Your task to perform on an android device: Open calendar and show me the fourth week of next month Image 0: 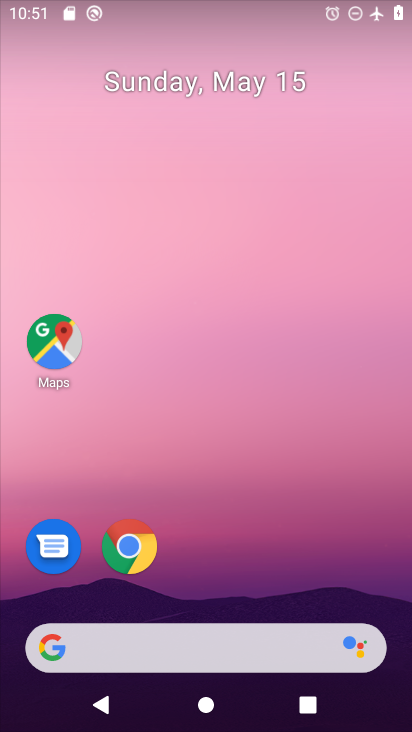
Step 0: drag from (301, 522) to (252, 132)
Your task to perform on an android device: Open calendar and show me the fourth week of next month Image 1: 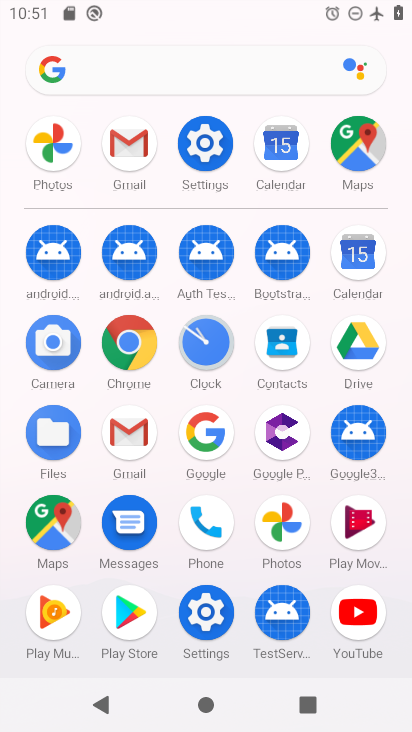
Step 1: click (358, 246)
Your task to perform on an android device: Open calendar and show me the fourth week of next month Image 2: 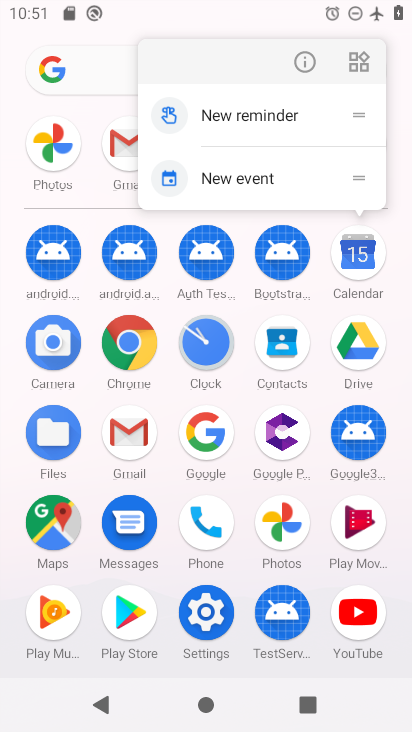
Step 2: click (366, 260)
Your task to perform on an android device: Open calendar and show me the fourth week of next month Image 3: 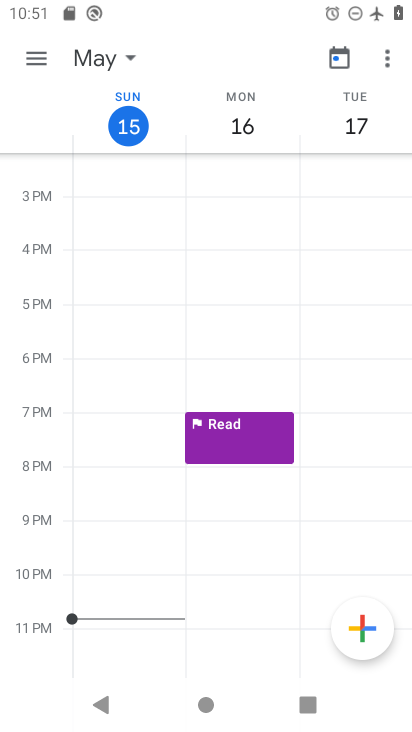
Step 3: click (112, 56)
Your task to perform on an android device: Open calendar and show me the fourth week of next month Image 4: 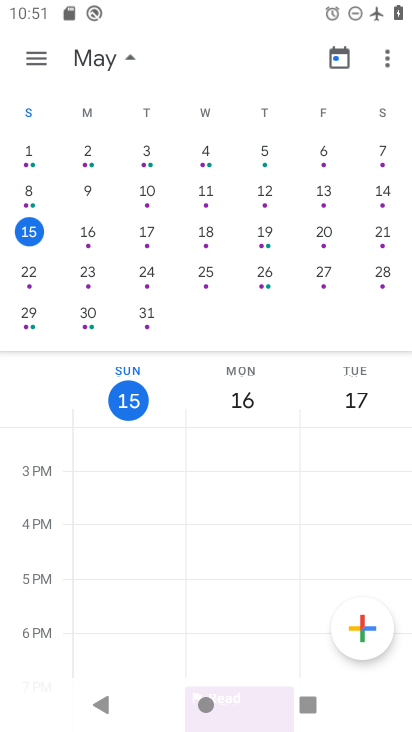
Step 4: drag from (356, 213) to (51, 251)
Your task to perform on an android device: Open calendar and show me the fourth week of next month Image 5: 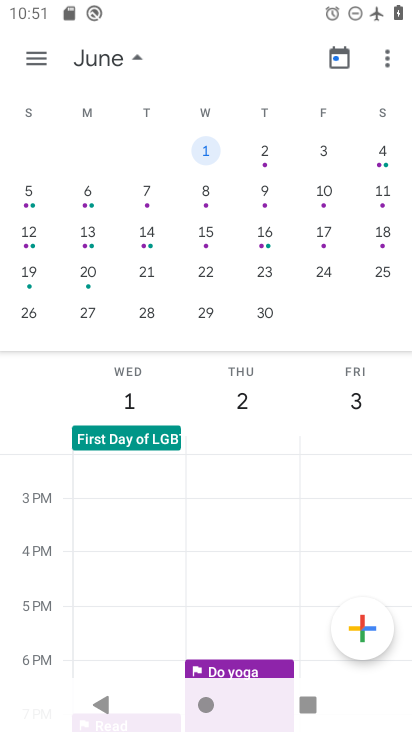
Step 5: click (25, 311)
Your task to perform on an android device: Open calendar and show me the fourth week of next month Image 6: 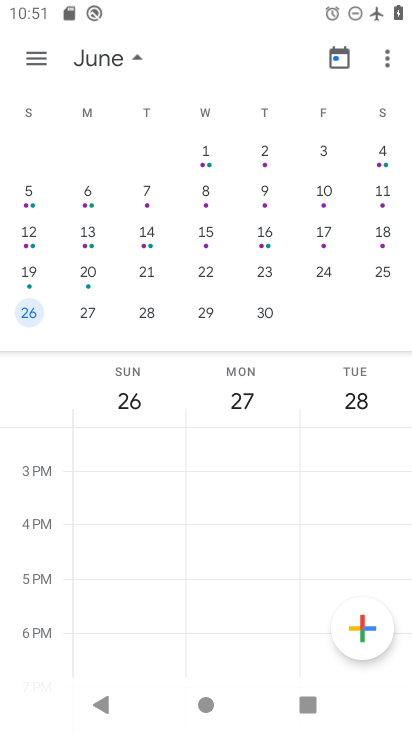
Step 6: task complete